Your task to perform on an android device: change the clock display to analog Image 0: 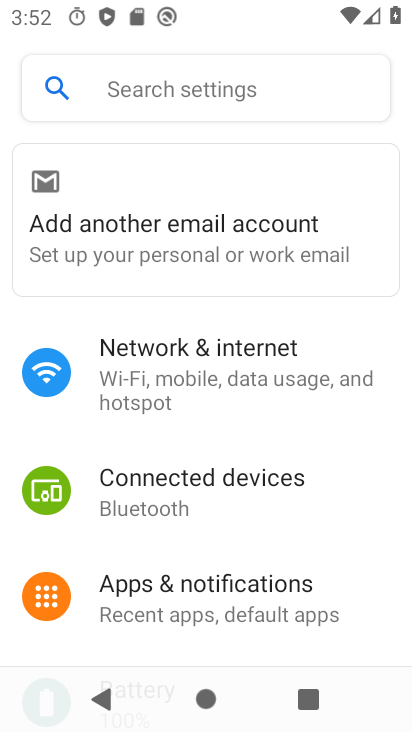
Step 0: press back button
Your task to perform on an android device: change the clock display to analog Image 1: 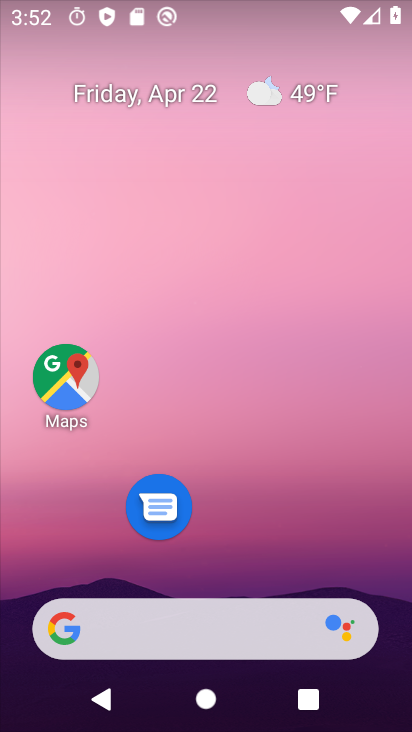
Step 1: drag from (254, 548) to (289, 102)
Your task to perform on an android device: change the clock display to analog Image 2: 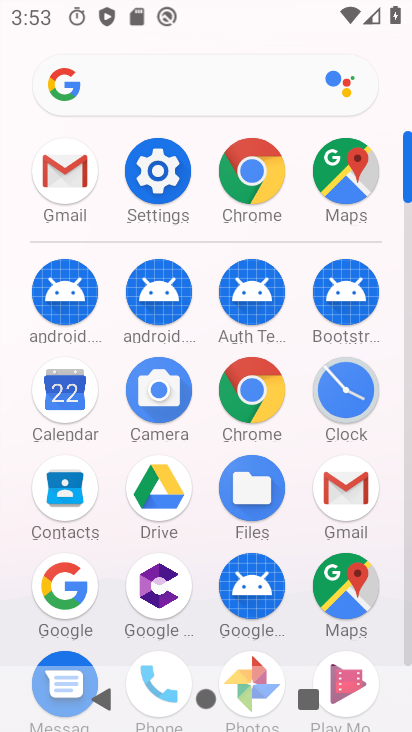
Step 2: click (338, 378)
Your task to perform on an android device: change the clock display to analog Image 3: 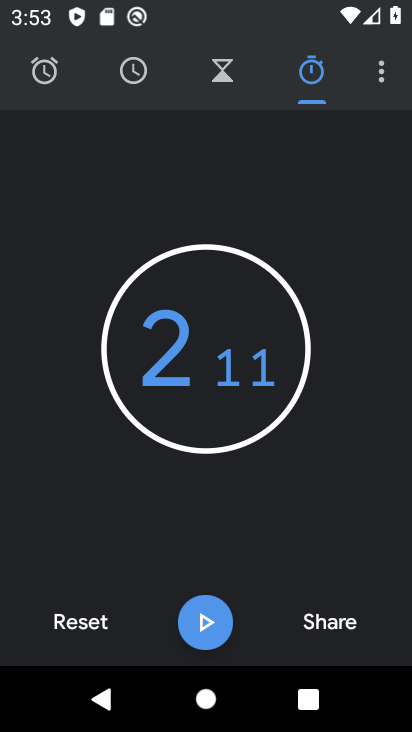
Step 3: click (381, 68)
Your task to perform on an android device: change the clock display to analog Image 4: 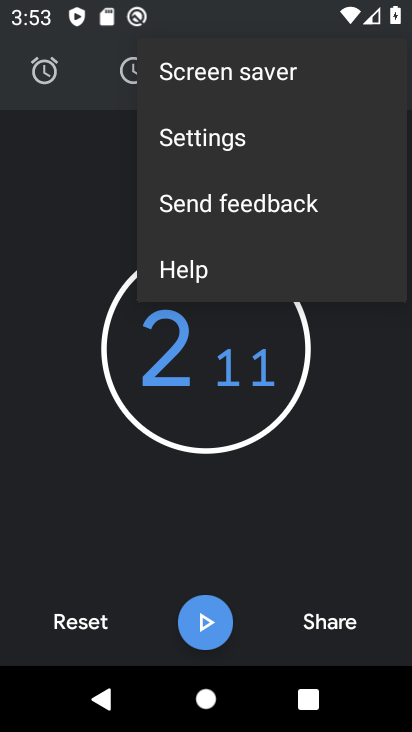
Step 4: click (257, 138)
Your task to perform on an android device: change the clock display to analog Image 5: 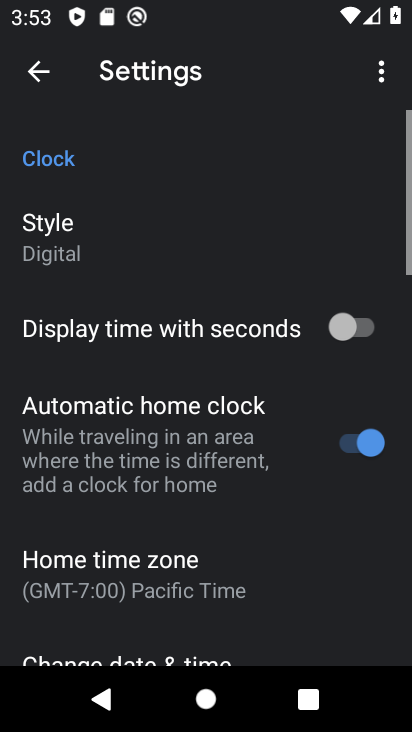
Step 5: click (129, 245)
Your task to perform on an android device: change the clock display to analog Image 6: 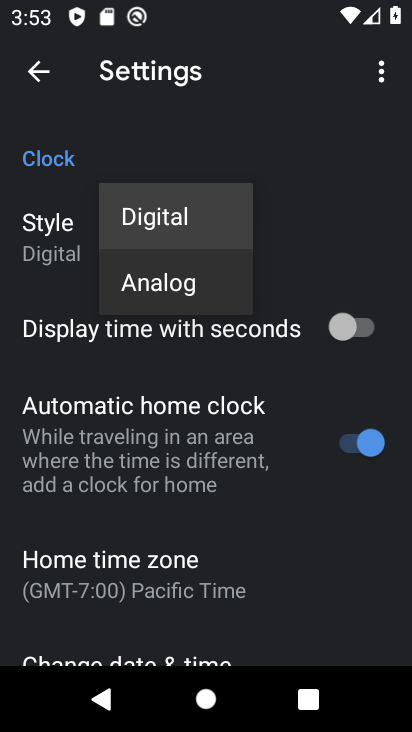
Step 6: click (176, 284)
Your task to perform on an android device: change the clock display to analog Image 7: 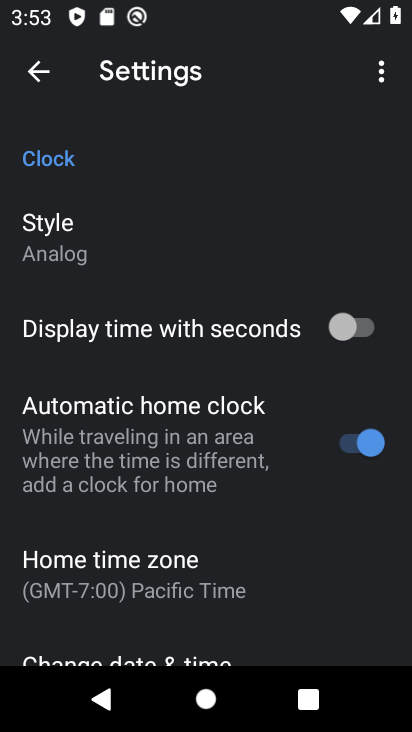
Step 7: task complete